Your task to perform on an android device: Open Amazon Image 0: 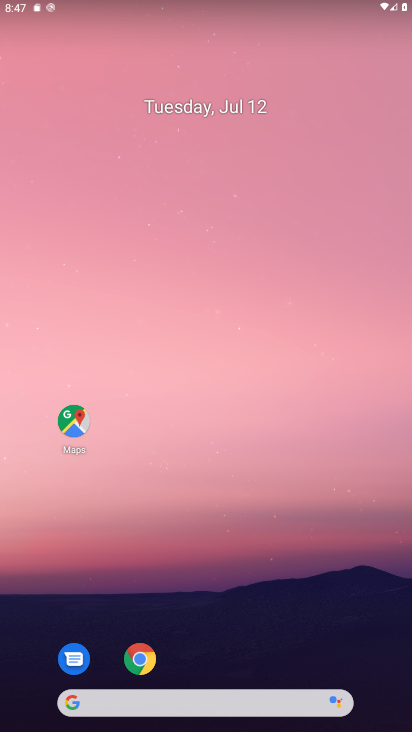
Step 0: drag from (216, 652) to (261, 98)
Your task to perform on an android device: Open Amazon Image 1: 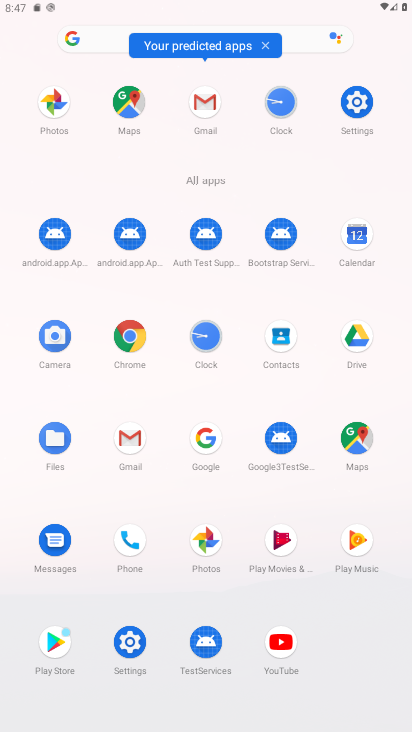
Step 1: click (132, 338)
Your task to perform on an android device: Open Amazon Image 2: 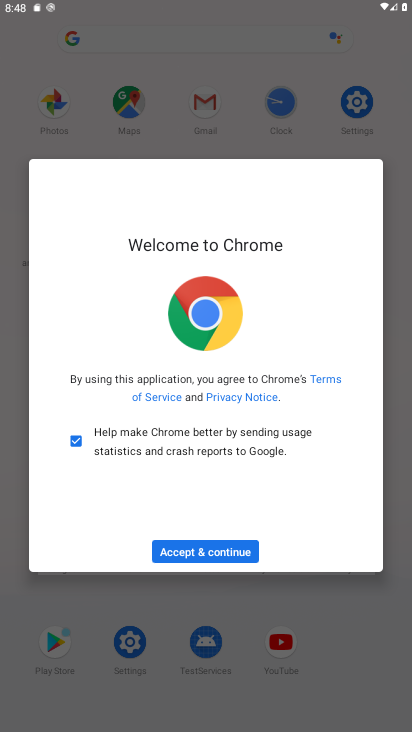
Step 2: click (203, 556)
Your task to perform on an android device: Open Amazon Image 3: 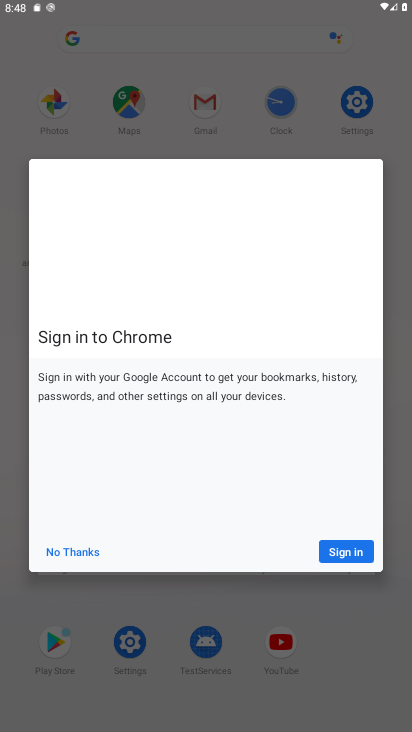
Step 3: click (359, 561)
Your task to perform on an android device: Open Amazon Image 4: 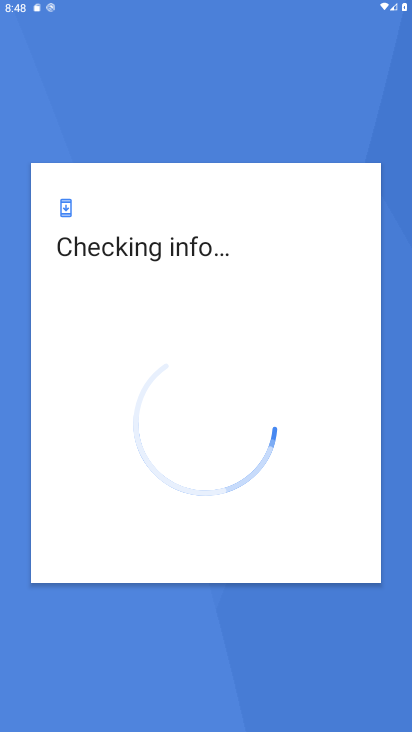
Step 4: click (352, 550)
Your task to perform on an android device: Open Amazon Image 5: 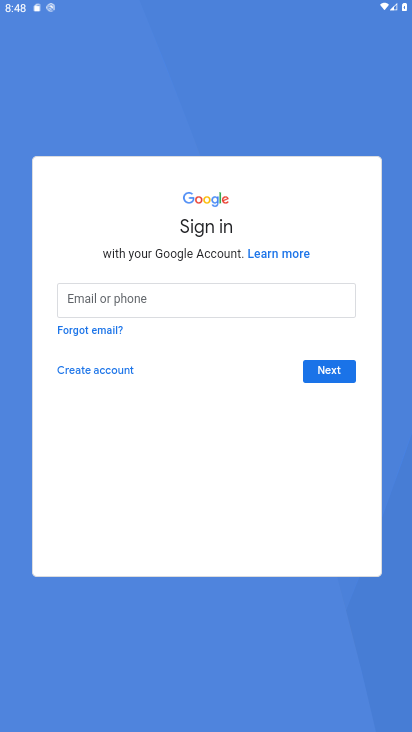
Step 5: task complete